Your task to perform on an android device: read, delete, or share a saved page in the chrome app Image 0: 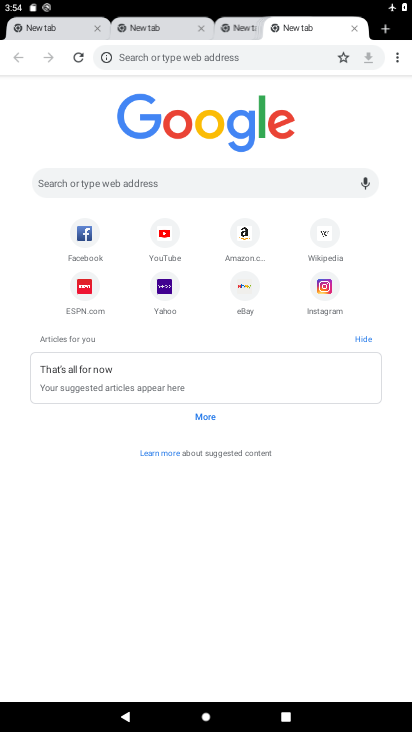
Step 0: click (386, 52)
Your task to perform on an android device: read, delete, or share a saved page in the chrome app Image 1: 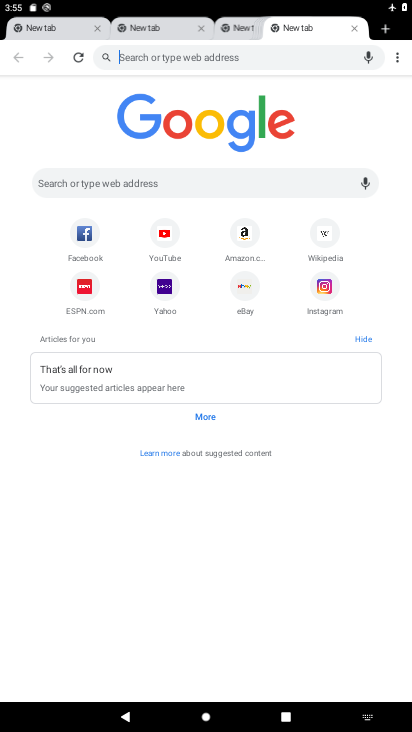
Step 1: click (399, 52)
Your task to perform on an android device: read, delete, or share a saved page in the chrome app Image 2: 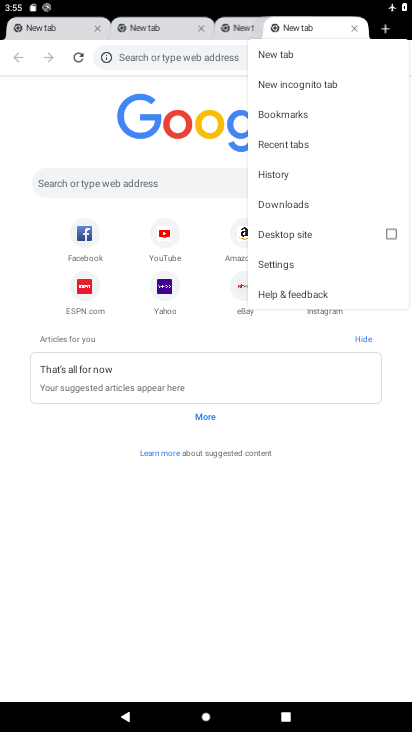
Step 2: click (296, 211)
Your task to perform on an android device: read, delete, or share a saved page in the chrome app Image 3: 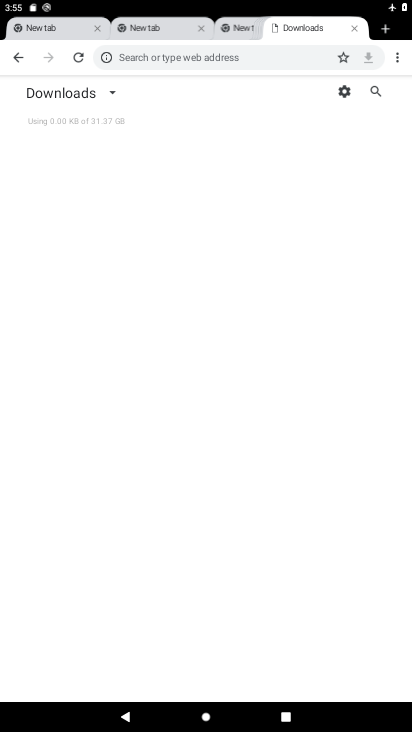
Step 3: click (96, 96)
Your task to perform on an android device: read, delete, or share a saved page in the chrome app Image 4: 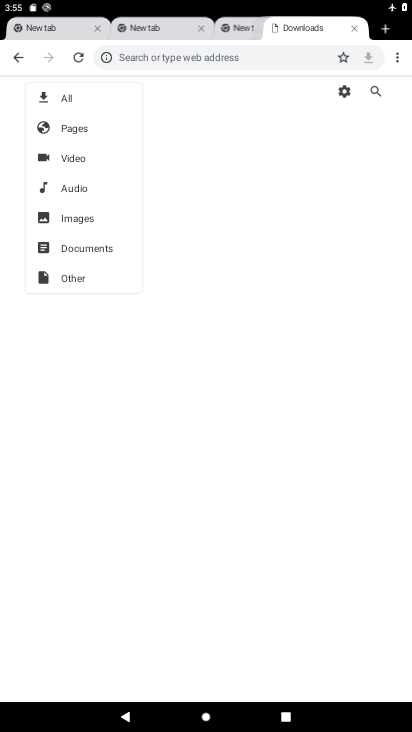
Step 4: click (80, 131)
Your task to perform on an android device: read, delete, or share a saved page in the chrome app Image 5: 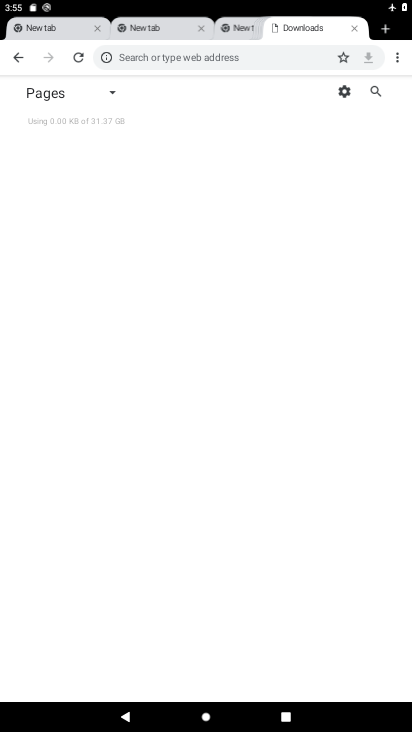
Step 5: task complete